Your task to perform on an android device: Search for alienware area 51 on target, select the first entry, add it to the cart, then select checkout. Image 0: 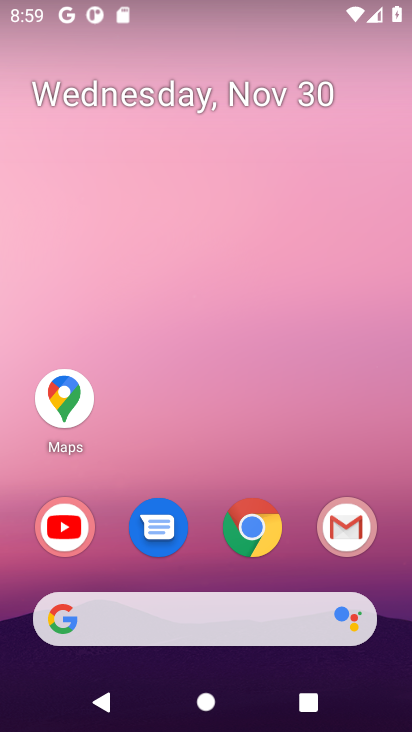
Step 0: click (269, 529)
Your task to perform on an android device: Search for alienware area 51 on target, select the first entry, add it to the cart, then select checkout. Image 1: 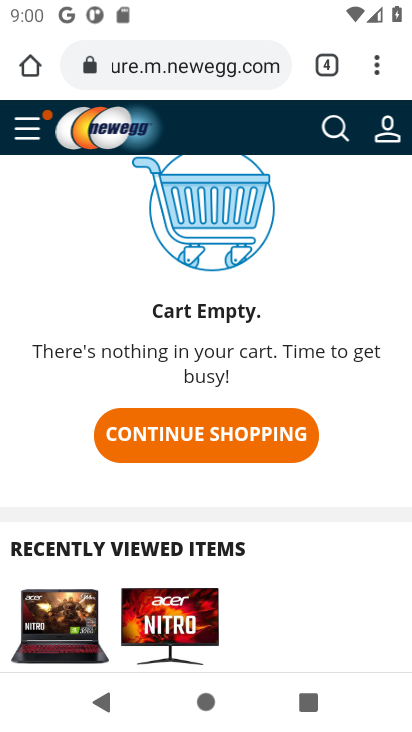
Step 1: click (166, 64)
Your task to perform on an android device: Search for alienware area 51 on target, select the first entry, add it to the cart, then select checkout. Image 2: 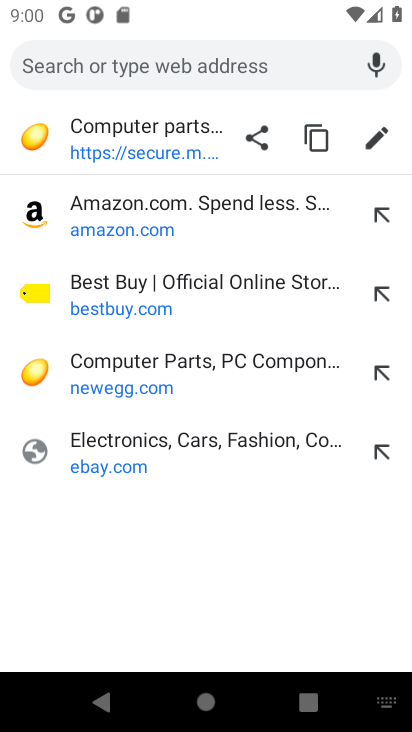
Step 2: type "target"
Your task to perform on an android device: Search for alienware area 51 on target, select the first entry, add it to the cart, then select checkout. Image 3: 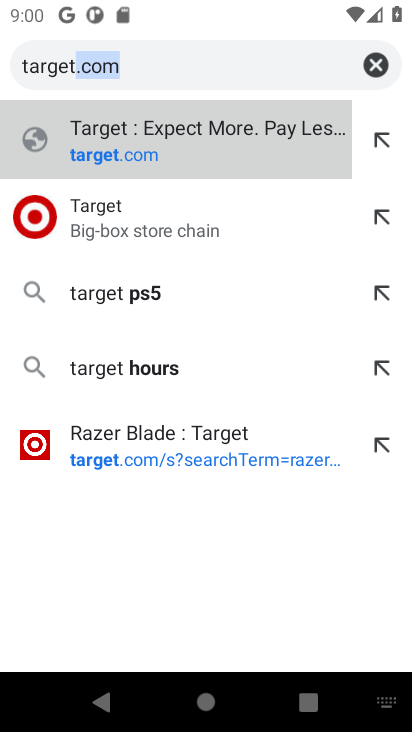
Step 3: press enter
Your task to perform on an android device: Search for alienware area 51 on target, select the first entry, add it to the cart, then select checkout. Image 4: 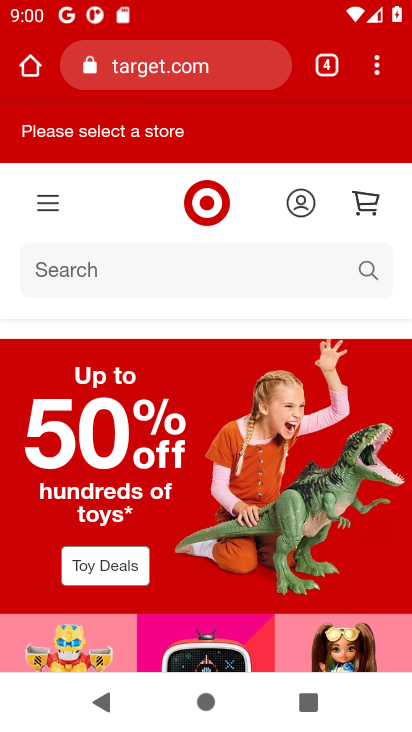
Step 4: click (370, 269)
Your task to perform on an android device: Search for alienware area 51 on target, select the first entry, add it to the cart, then select checkout. Image 5: 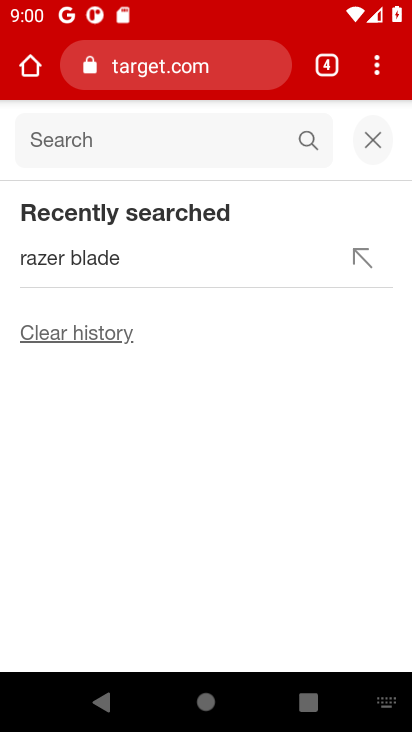
Step 5: type "alienware area 51 "
Your task to perform on an android device: Search for alienware area 51 on target, select the first entry, add it to the cart, then select checkout. Image 6: 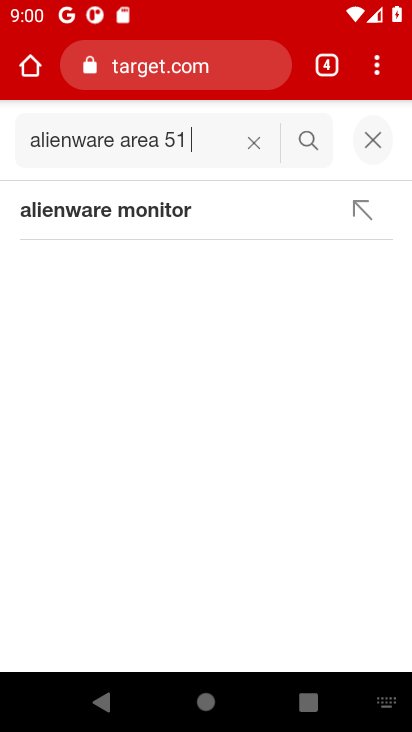
Step 6: click (307, 133)
Your task to perform on an android device: Search for alienware area 51 on target, select the first entry, add it to the cart, then select checkout. Image 7: 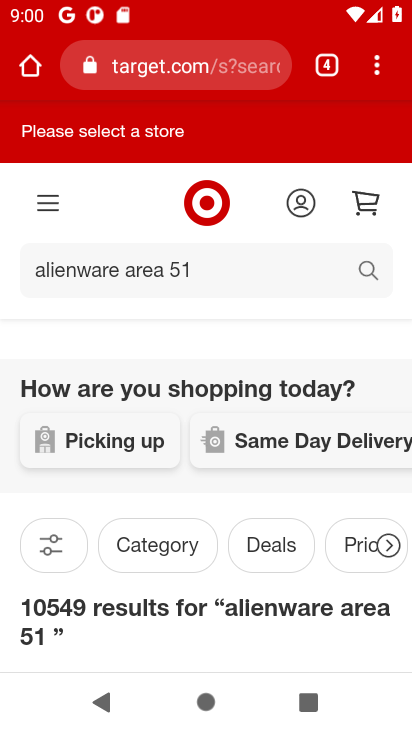
Step 7: task complete